Your task to perform on an android device: Open Youtube and go to the subscriptions tab Image 0: 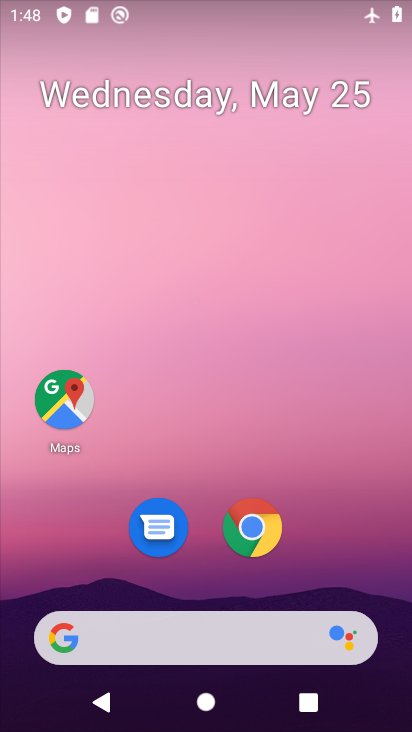
Step 0: drag from (182, 573) to (241, 44)
Your task to perform on an android device: Open Youtube and go to the subscriptions tab Image 1: 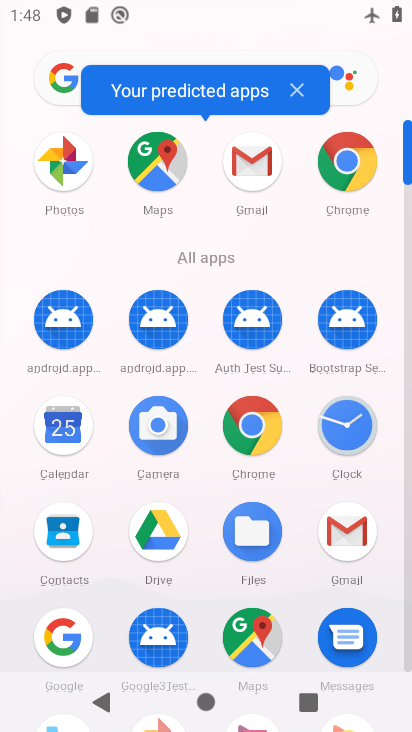
Step 1: drag from (177, 574) to (253, 126)
Your task to perform on an android device: Open Youtube and go to the subscriptions tab Image 2: 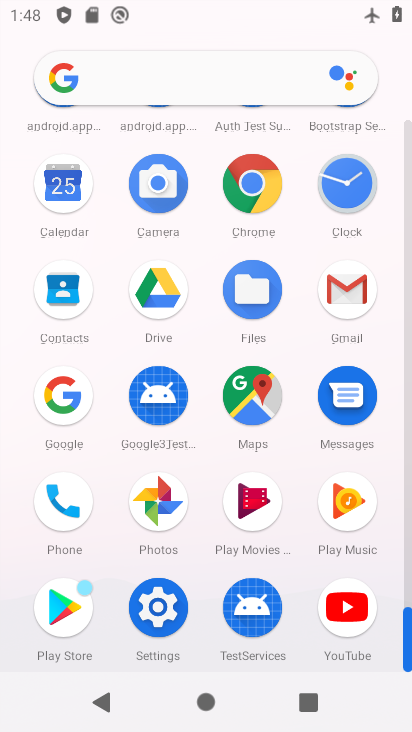
Step 2: click (339, 588)
Your task to perform on an android device: Open Youtube and go to the subscriptions tab Image 3: 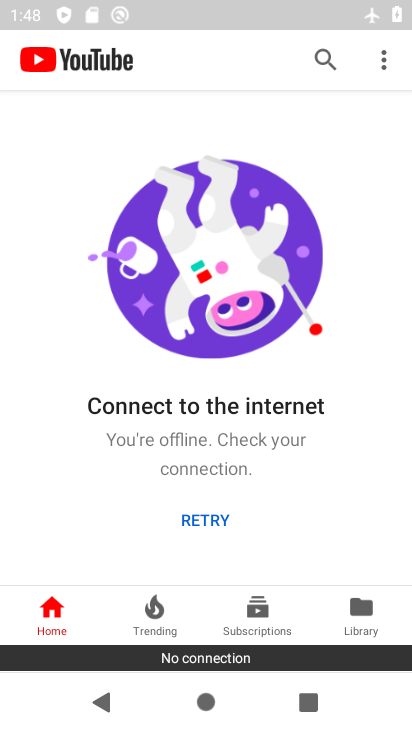
Step 3: click (263, 607)
Your task to perform on an android device: Open Youtube and go to the subscriptions tab Image 4: 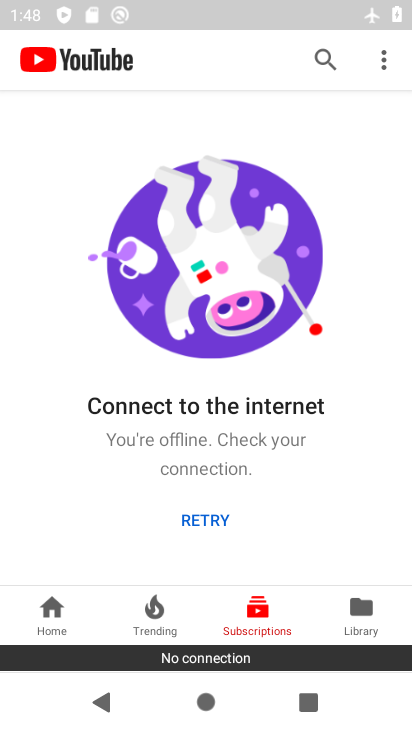
Step 4: task complete